Your task to perform on an android device: Open Google Image 0: 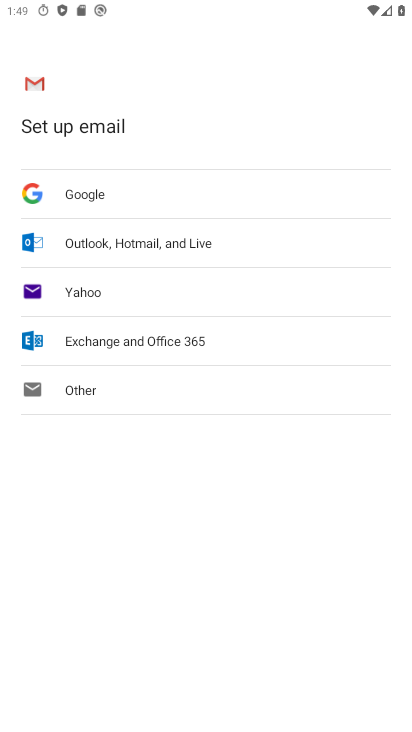
Step 0: press home button
Your task to perform on an android device: Open Google Image 1: 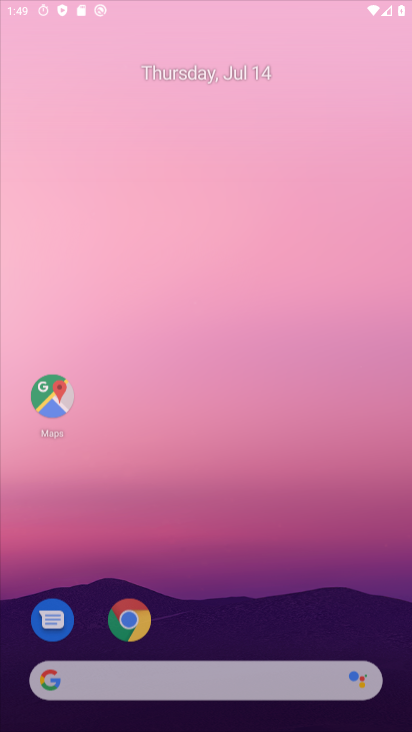
Step 1: drag from (229, 624) to (229, 473)
Your task to perform on an android device: Open Google Image 2: 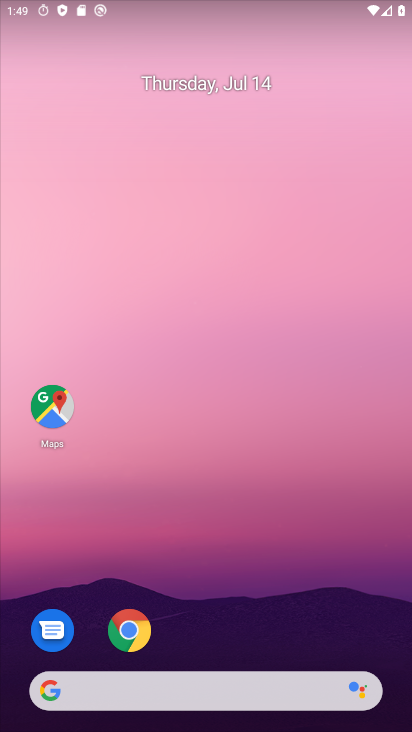
Step 2: drag from (188, 619) to (201, 467)
Your task to perform on an android device: Open Google Image 3: 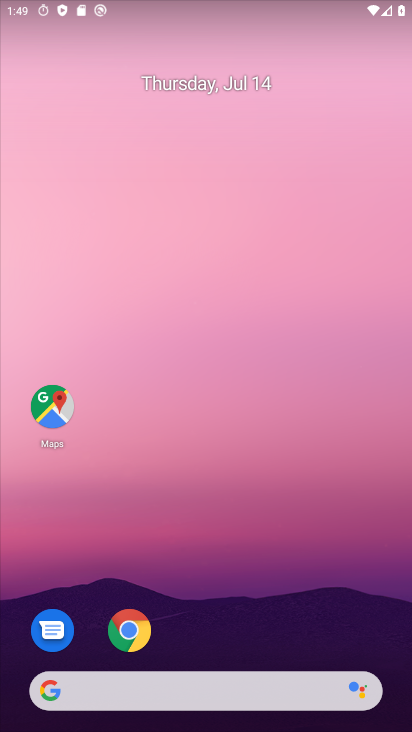
Step 3: drag from (204, 649) to (309, 207)
Your task to perform on an android device: Open Google Image 4: 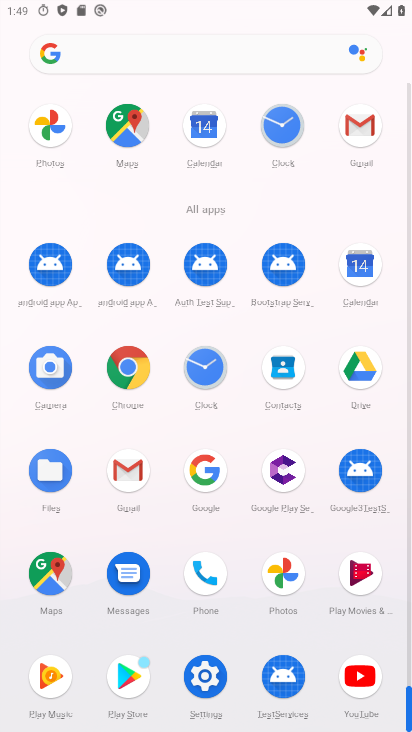
Step 4: click (208, 470)
Your task to perform on an android device: Open Google Image 5: 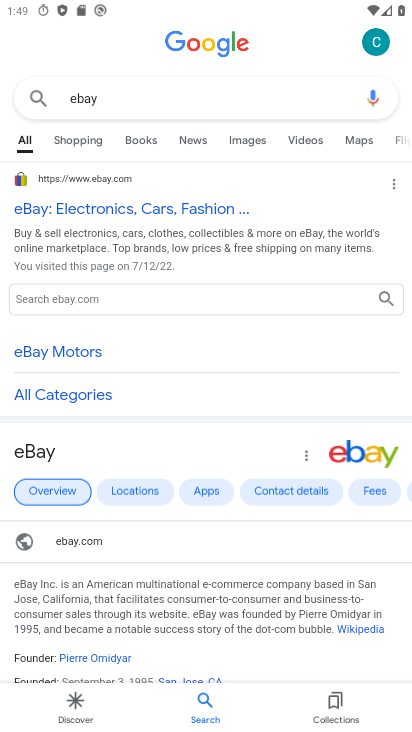
Step 5: drag from (128, 577) to (269, 330)
Your task to perform on an android device: Open Google Image 6: 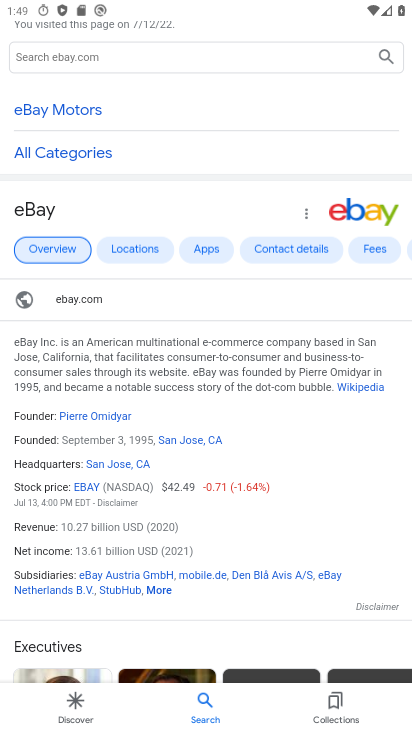
Step 6: drag from (171, 593) to (278, 302)
Your task to perform on an android device: Open Google Image 7: 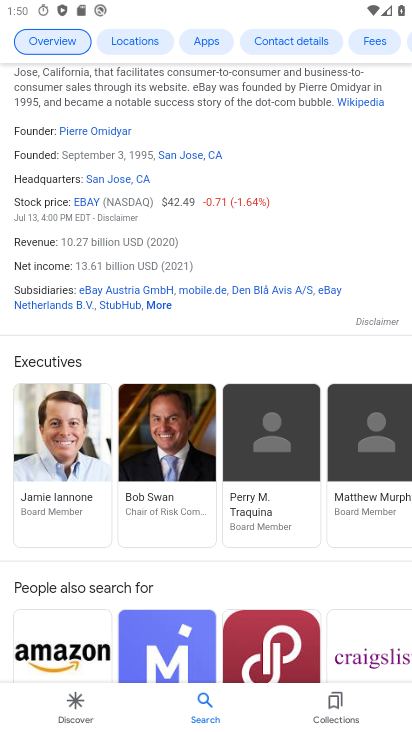
Step 7: drag from (276, 569) to (319, 276)
Your task to perform on an android device: Open Google Image 8: 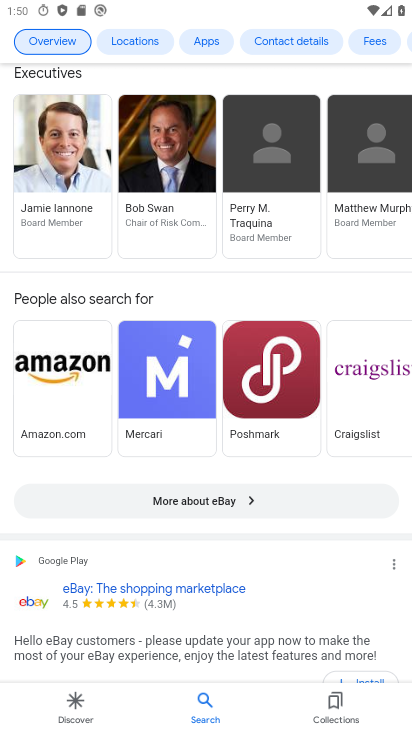
Step 8: drag from (330, 179) to (293, 686)
Your task to perform on an android device: Open Google Image 9: 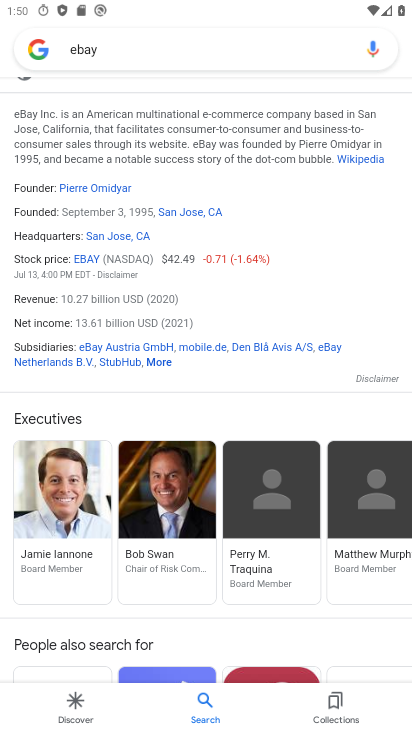
Step 9: drag from (264, 249) to (249, 559)
Your task to perform on an android device: Open Google Image 10: 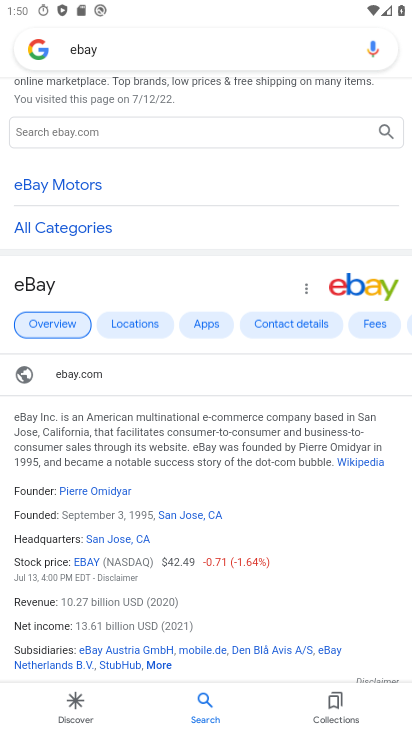
Step 10: drag from (270, 260) to (236, 566)
Your task to perform on an android device: Open Google Image 11: 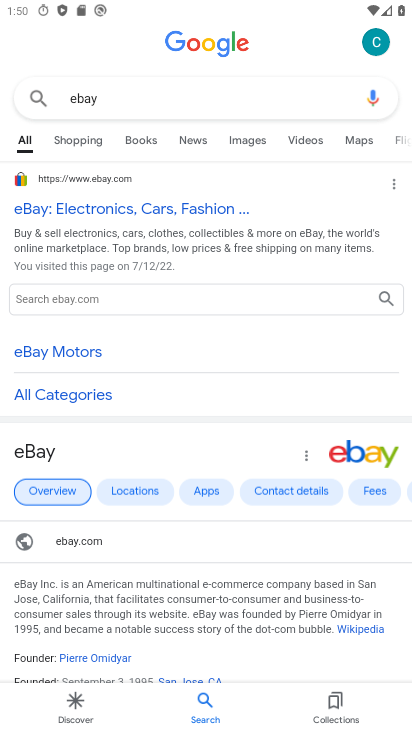
Step 11: click (256, 307)
Your task to perform on an android device: Open Google Image 12: 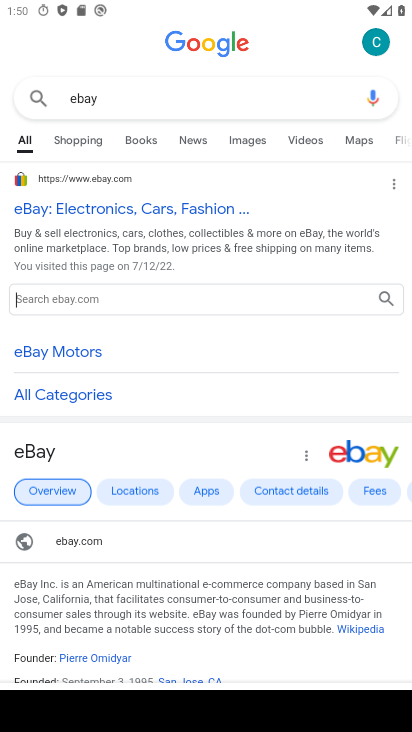
Step 12: click (212, 256)
Your task to perform on an android device: Open Google Image 13: 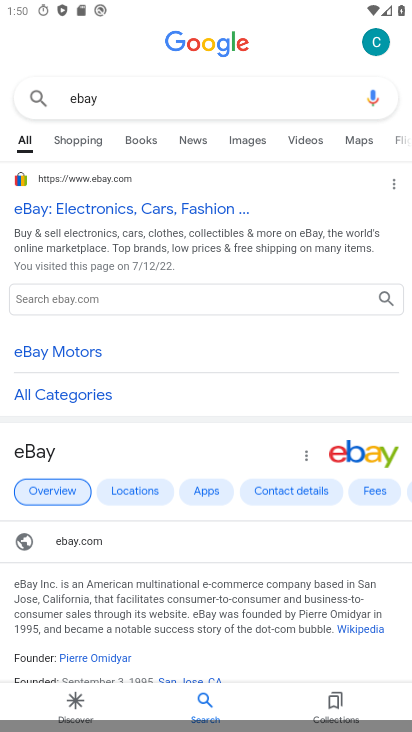
Step 13: click (340, 264)
Your task to perform on an android device: Open Google Image 14: 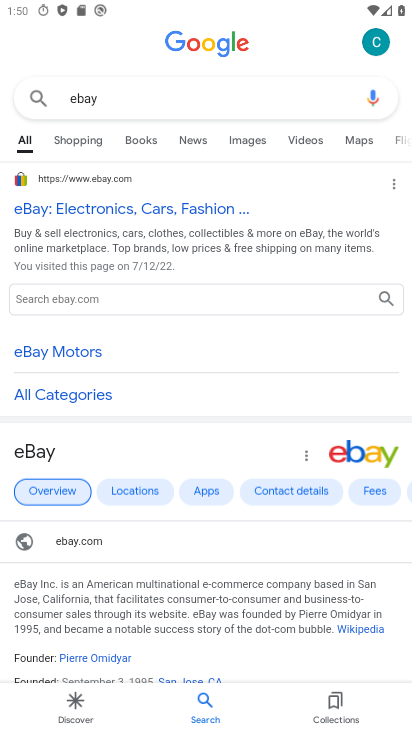
Step 14: task complete